Your task to perform on an android device: Search for pizza restaurants on Maps Image 0: 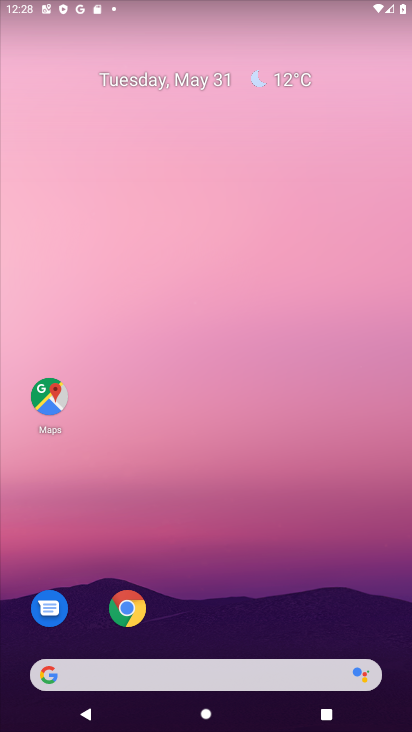
Step 0: drag from (193, 622) to (241, 67)
Your task to perform on an android device: Search for pizza restaurants on Maps Image 1: 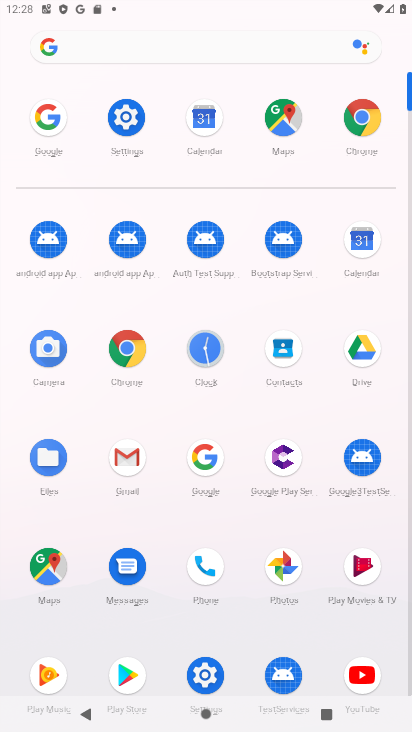
Step 1: click (51, 569)
Your task to perform on an android device: Search for pizza restaurants on Maps Image 2: 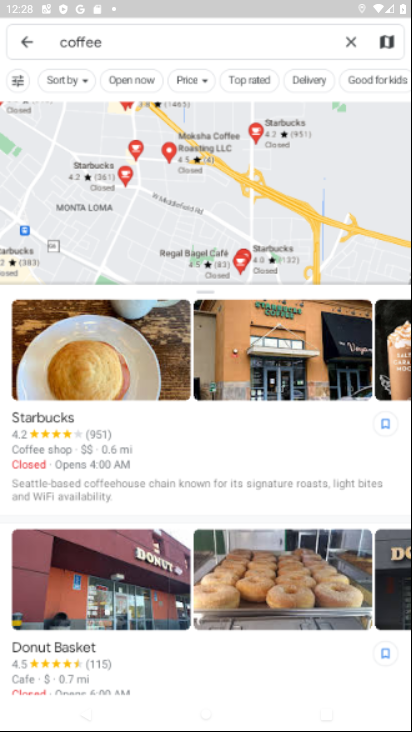
Step 2: click (355, 43)
Your task to perform on an android device: Search for pizza restaurants on Maps Image 3: 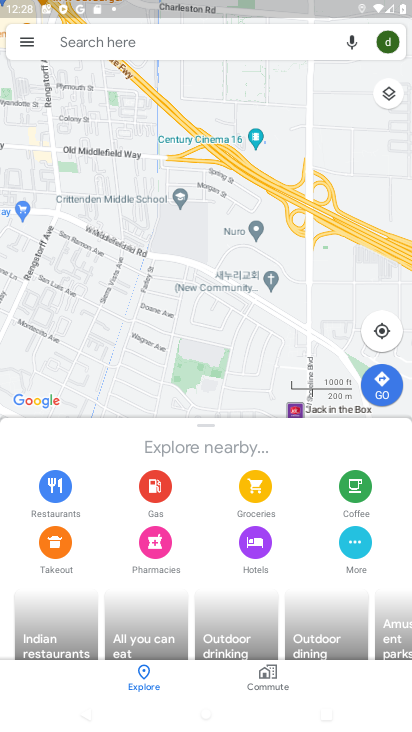
Step 3: click (263, 43)
Your task to perform on an android device: Search for pizza restaurants on Maps Image 4: 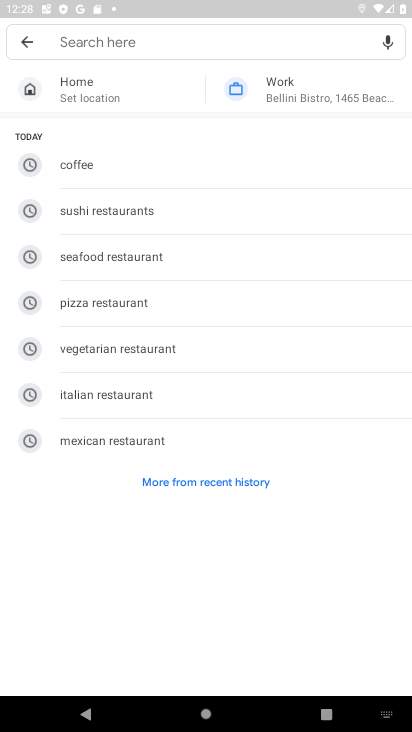
Step 4: click (126, 294)
Your task to perform on an android device: Search for pizza restaurants on Maps Image 5: 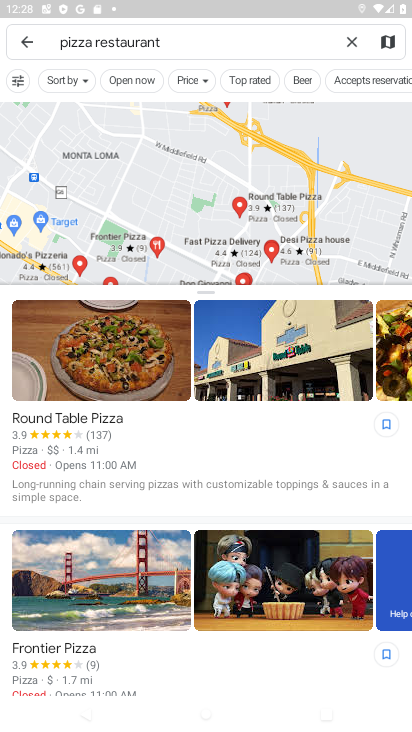
Step 5: task complete